Your task to perform on an android device: Open my contact list Image 0: 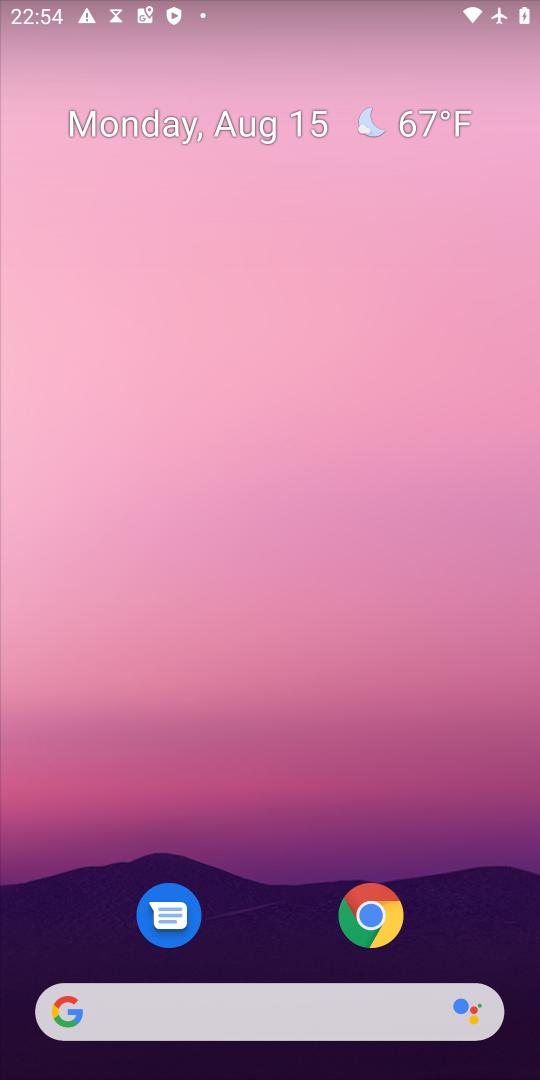
Step 0: press home button
Your task to perform on an android device: Open my contact list Image 1: 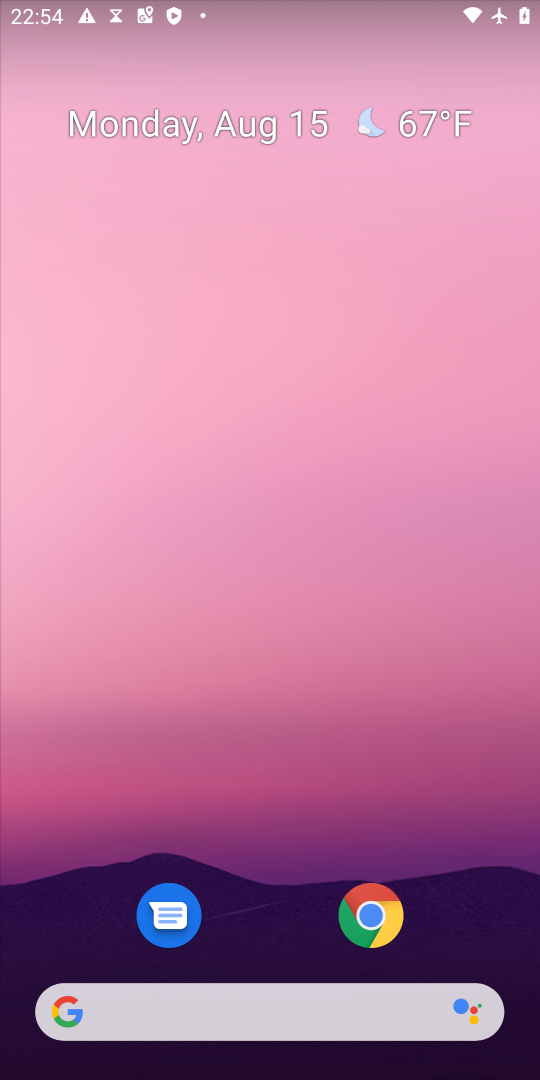
Step 1: drag from (303, 938) to (404, 249)
Your task to perform on an android device: Open my contact list Image 2: 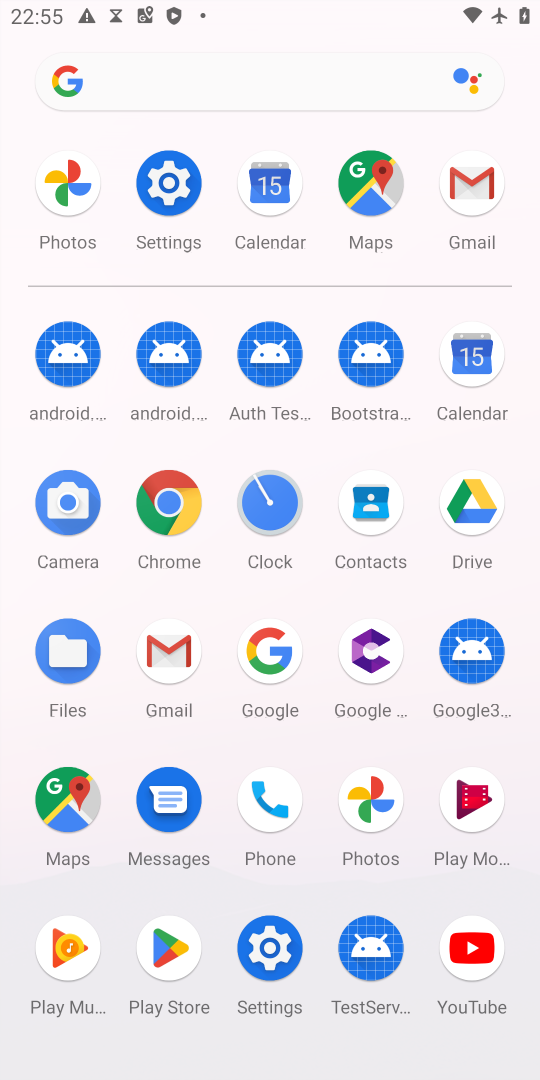
Step 2: click (383, 499)
Your task to perform on an android device: Open my contact list Image 3: 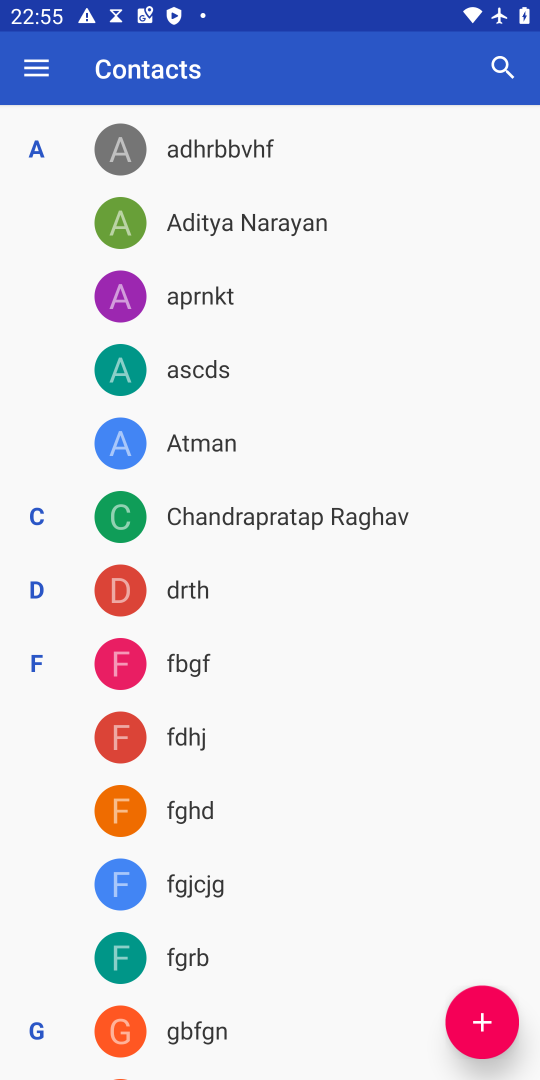
Step 3: task complete